Your task to perform on an android device: Search for pizza restaurants on Maps Image 0: 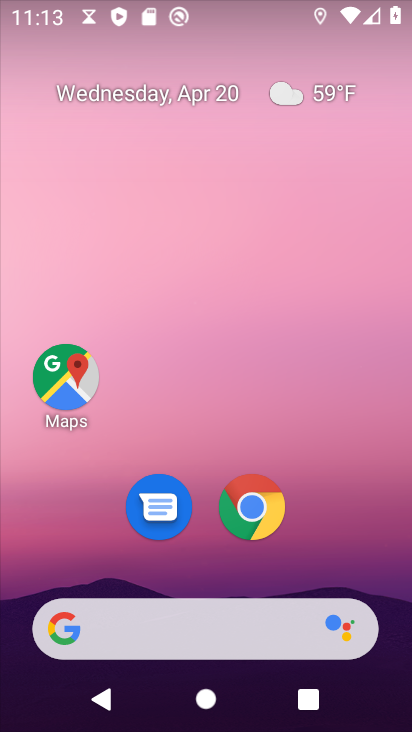
Step 0: drag from (263, 656) to (255, 248)
Your task to perform on an android device: Search for pizza restaurants on Maps Image 1: 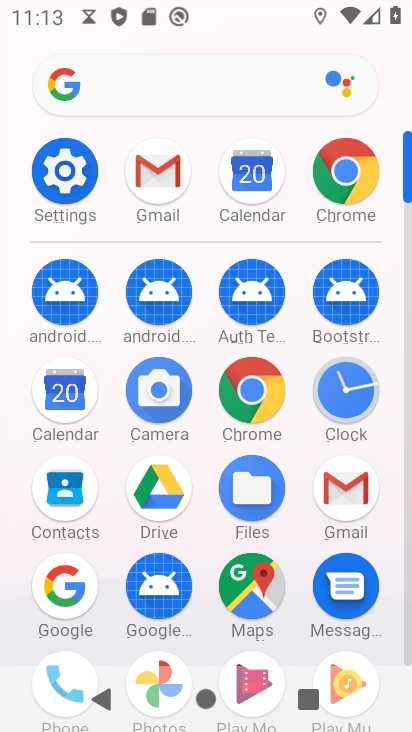
Step 1: click (245, 567)
Your task to perform on an android device: Search for pizza restaurants on Maps Image 2: 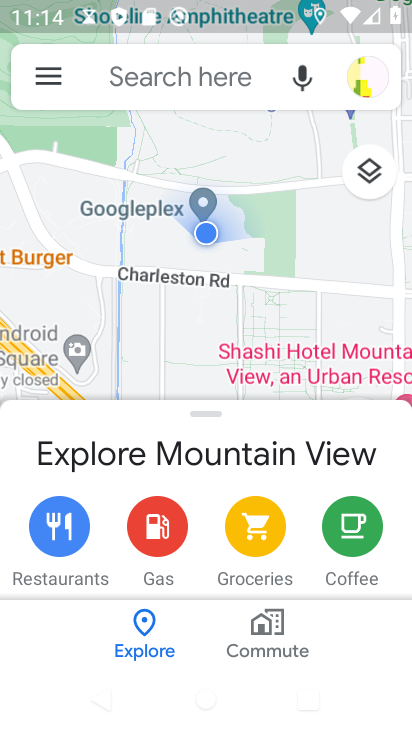
Step 2: click (165, 64)
Your task to perform on an android device: Search for pizza restaurants on Maps Image 3: 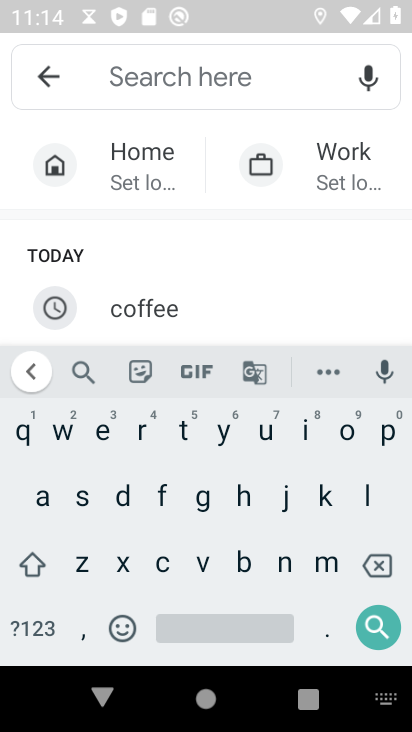
Step 3: click (387, 441)
Your task to perform on an android device: Search for pizza restaurants on Maps Image 4: 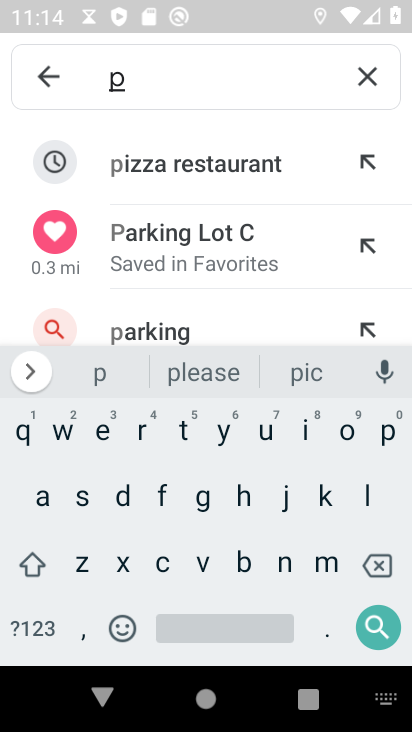
Step 4: click (200, 157)
Your task to perform on an android device: Search for pizza restaurants on Maps Image 5: 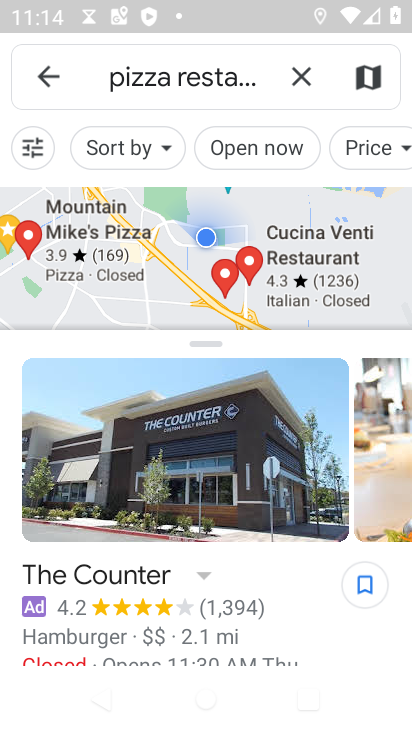
Step 5: click (168, 215)
Your task to perform on an android device: Search for pizza restaurants on Maps Image 6: 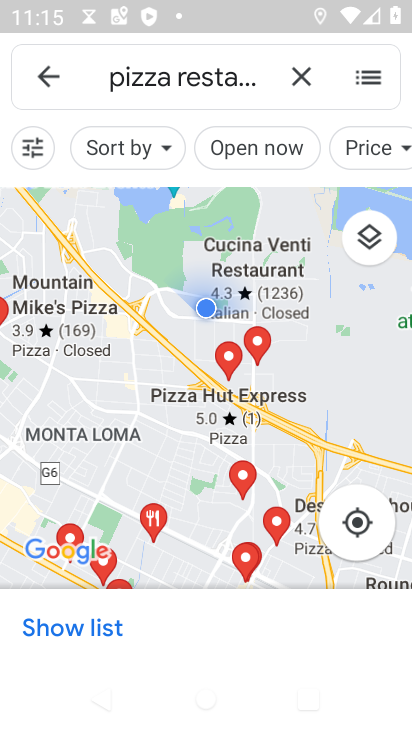
Step 6: task complete